Your task to perform on an android device: clear history in the chrome app Image 0: 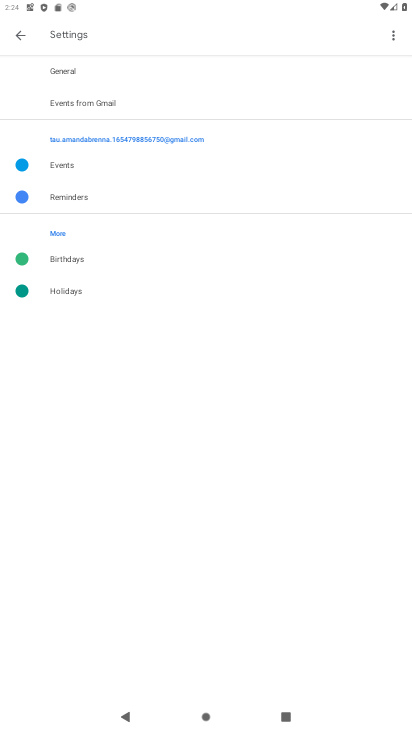
Step 0: press home button
Your task to perform on an android device: clear history in the chrome app Image 1: 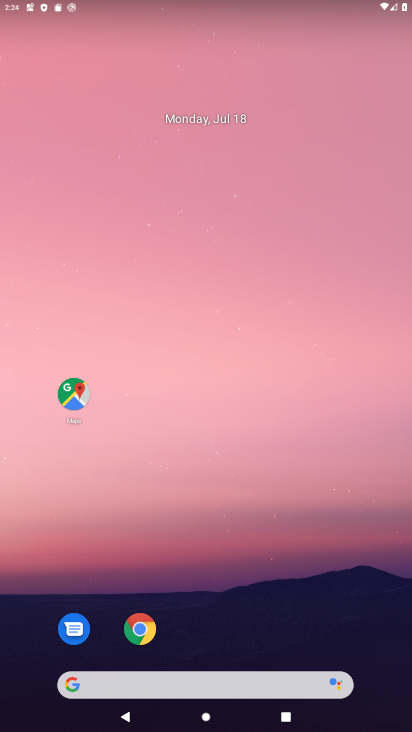
Step 1: drag from (180, 663) to (160, 204)
Your task to perform on an android device: clear history in the chrome app Image 2: 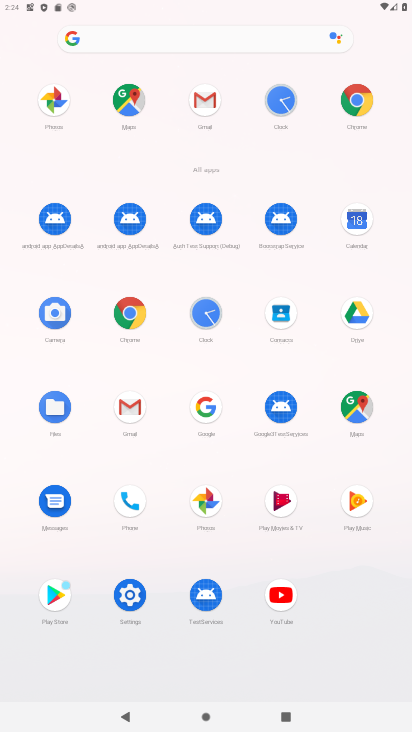
Step 2: click (124, 306)
Your task to perform on an android device: clear history in the chrome app Image 3: 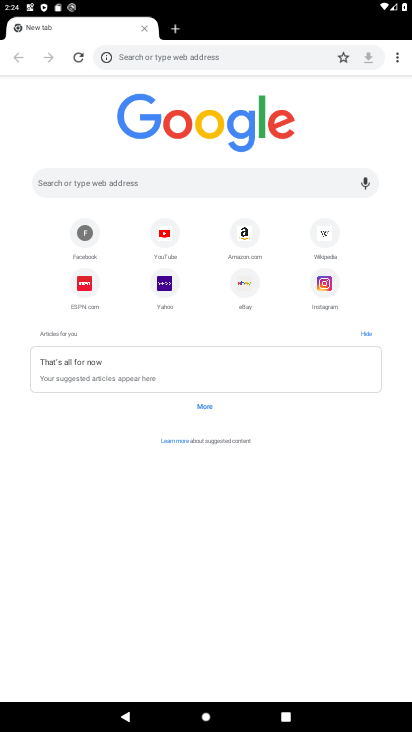
Step 3: task complete